Your task to perform on an android device: turn off sleep mode Image 0: 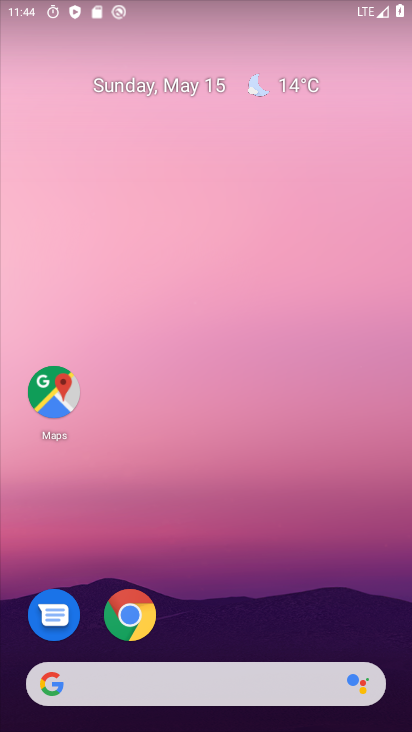
Step 0: drag from (354, 565) to (337, 84)
Your task to perform on an android device: turn off sleep mode Image 1: 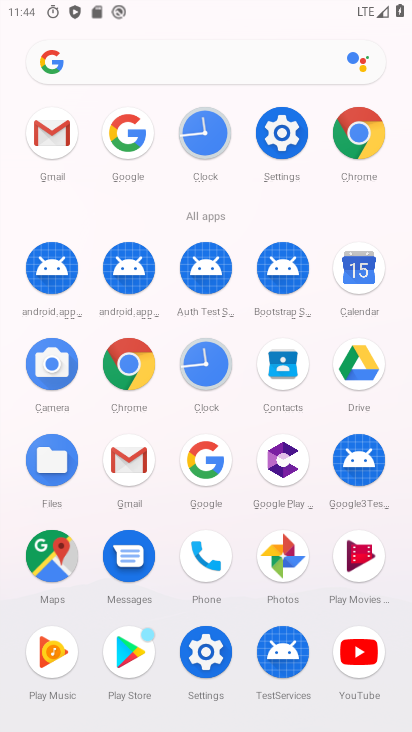
Step 1: click (289, 140)
Your task to perform on an android device: turn off sleep mode Image 2: 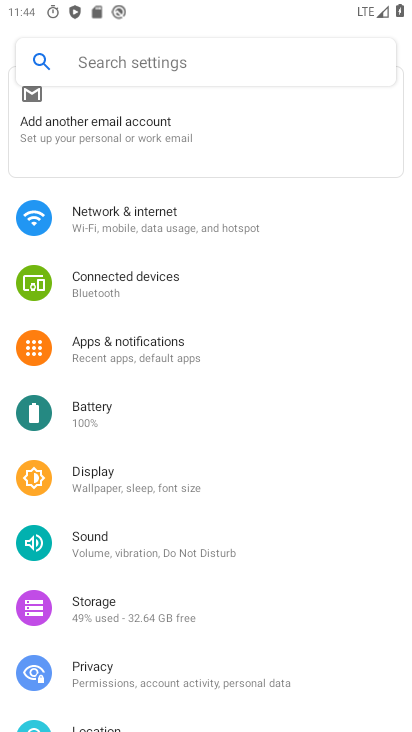
Step 2: drag from (239, 576) to (242, 320)
Your task to perform on an android device: turn off sleep mode Image 3: 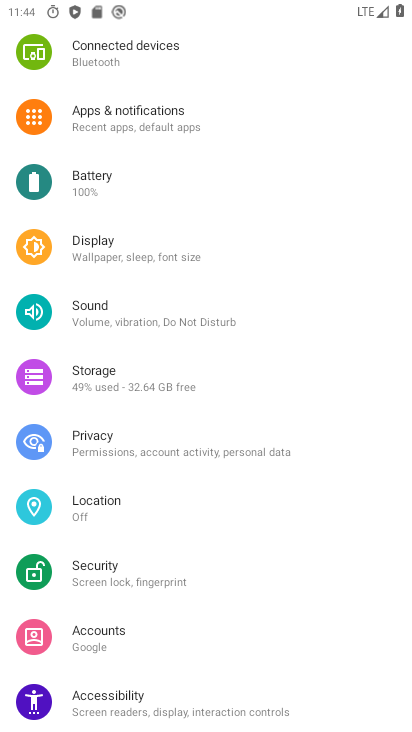
Step 3: click (130, 318)
Your task to perform on an android device: turn off sleep mode Image 4: 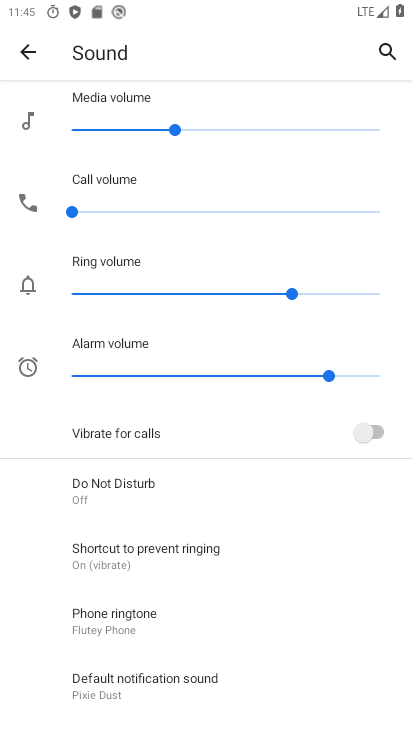
Step 4: drag from (214, 288) to (264, 578)
Your task to perform on an android device: turn off sleep mode Image 5: 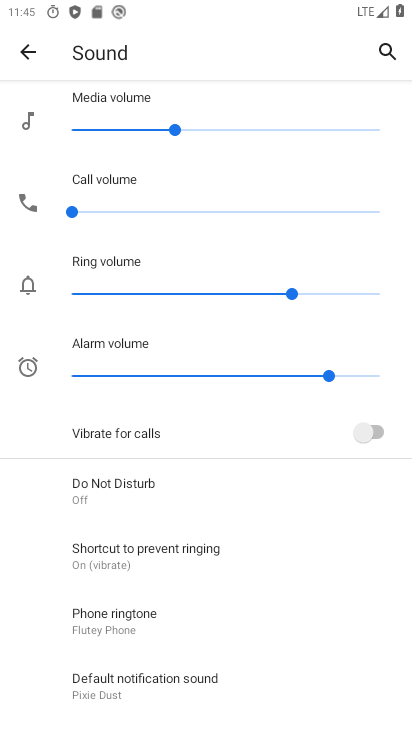
Step 5: drag from (134, 620) to (113, 261)
Your task to perform on an android device: turn off sleep mode Image 6: 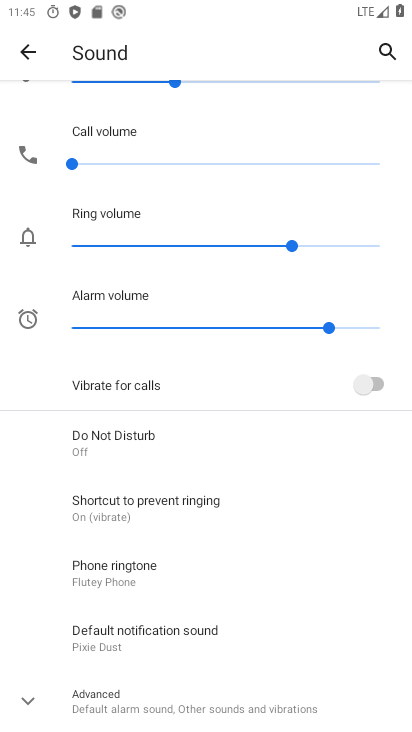
Step 6: press home button
Your task to perform on an android device: turn off sleep mode Image 7: 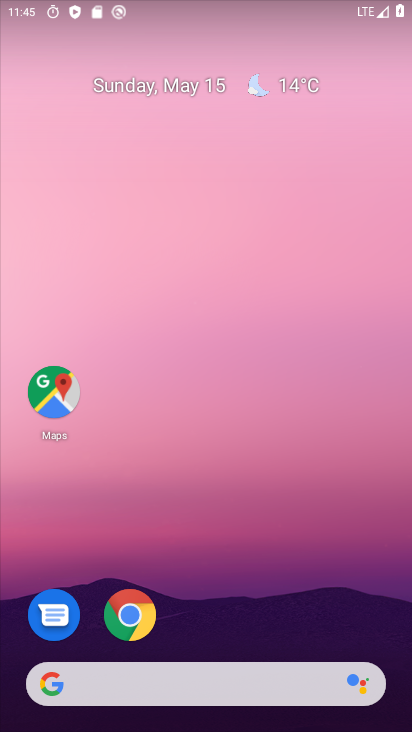
Step 7: drag from (301, 548) to (242, 67)
Your task to perform on an android device: turn off sleep mode Image 8: 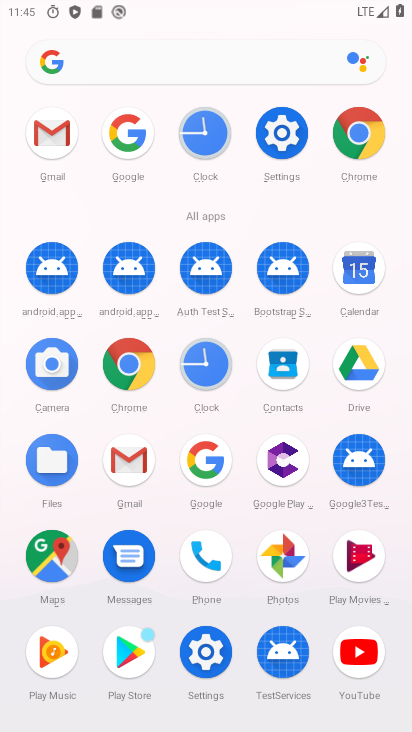
Step 8: click (287, 124)
Your task to perform on an android device: turn off sleep mode Image 9: 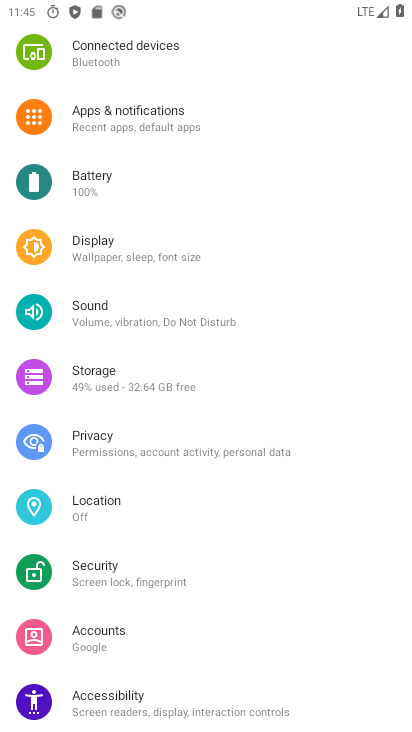
Step 9: drag from (288, 124) to (299, 604)
Your task to perform on an android device: turn off sleep mode Image 10: 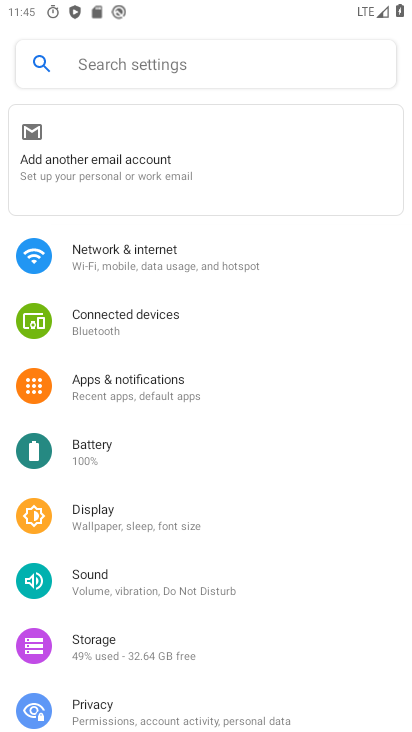
Step 10: drag from (242, 157) to (246, 641)
Your task to perform on an android device: turn off sleep mode Image 11: 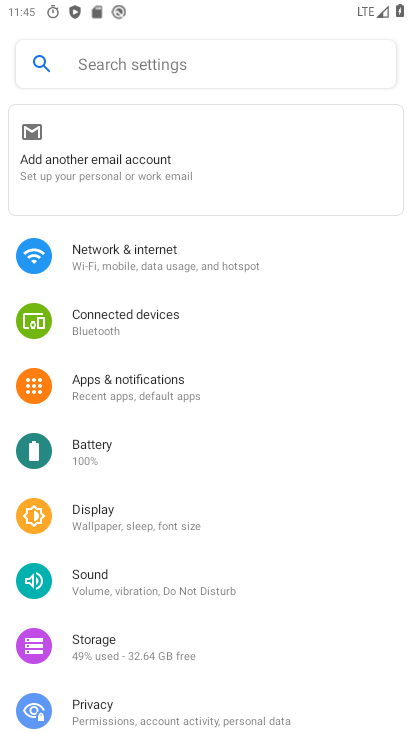
Step 11: drag from (142, 621) to (172, 366)
Your task to perform on an android device: turn off sleep mode Image 12: 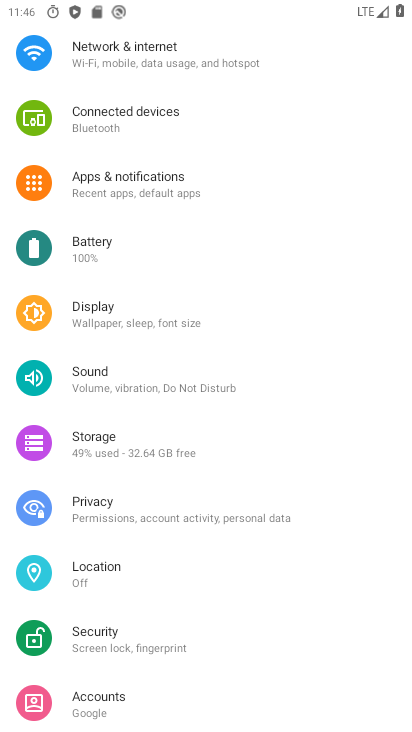
Step 12: drag from (214, 210) to (242, 465)
Your task to perform on an android device: turn off sleep mode Image 13: 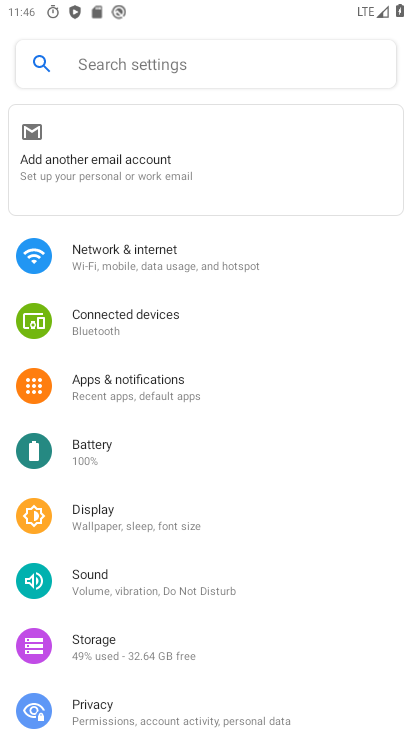
Step 13: drag from (173, 614) to (147, 308)
Your task to perform on an android device: turn off sleep mode Image 14: 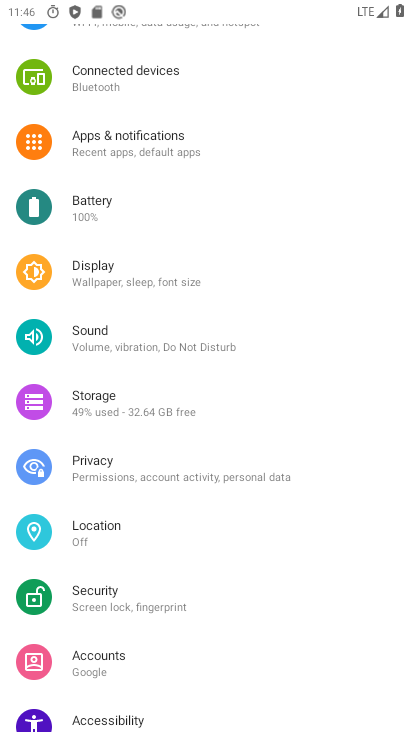
Step 14: drag from (197, 165) to (104, 480)
Your task to perform on an android device: turn off sleep mode Image 15: 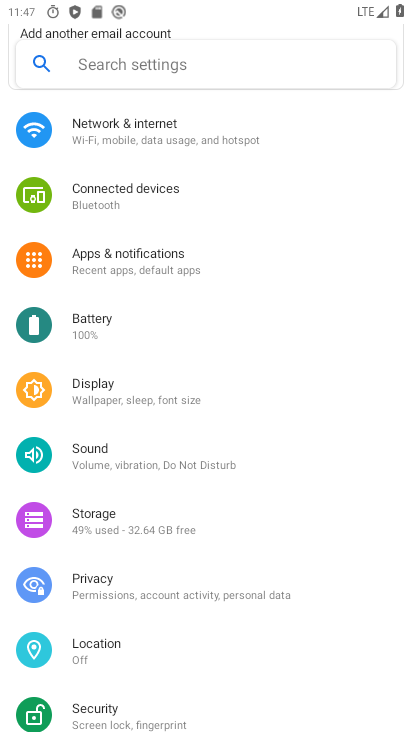
Step 15: drag from (135, 384) to (126, 612)
Your task to perform on an android device: turn off sleep mode Image 16: 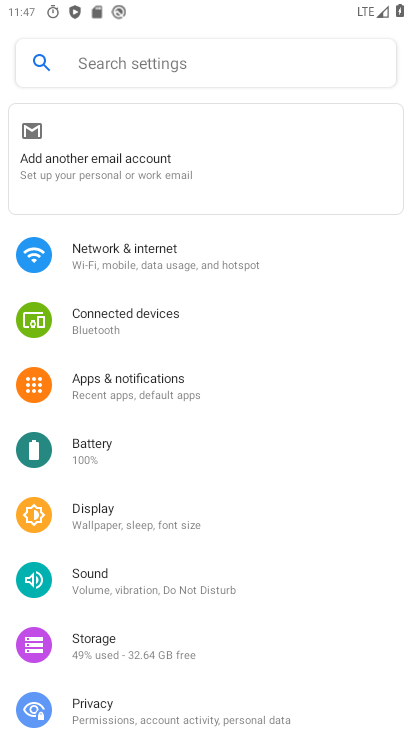
Step 16: click (108, 524)
Your task to perform on an android device: turn off sleep mode Image 17: 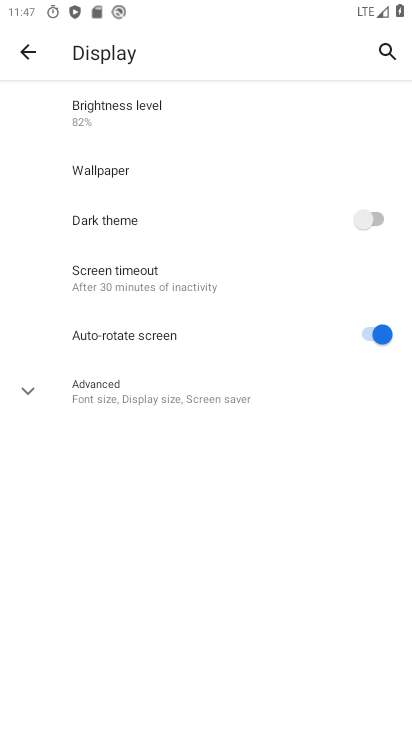
Step 17: click (131, 277)
Your task to perform on an android device: turn off sleep mode Image 18: 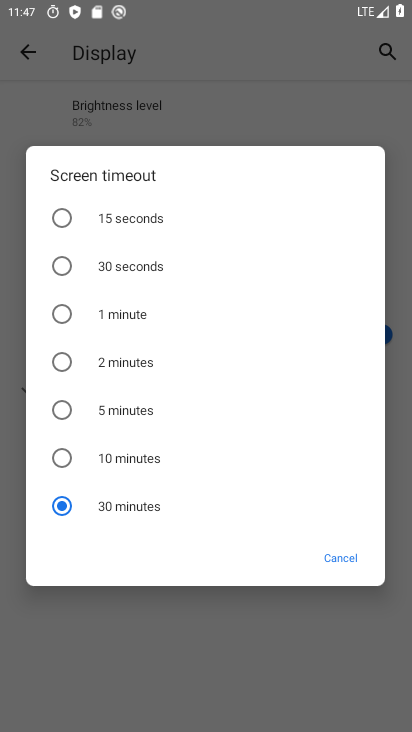
Step 18: task complete